Your task to perform on an android device: turn off data saver in the chrome app Image 0: 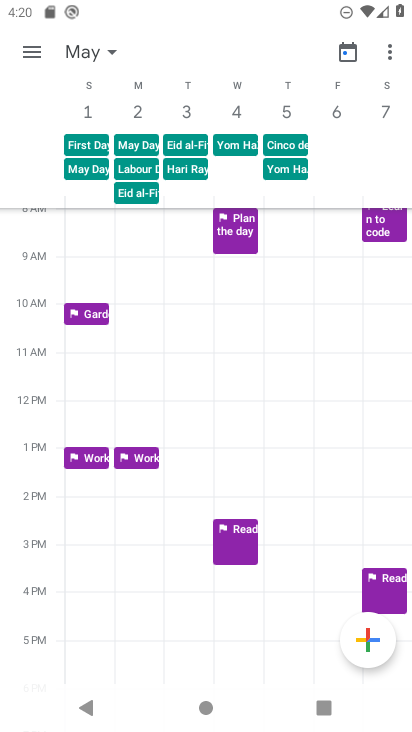
Step 0: press home button
Your task to perform on an android device: turn off data saver in the chrome app Image 1: 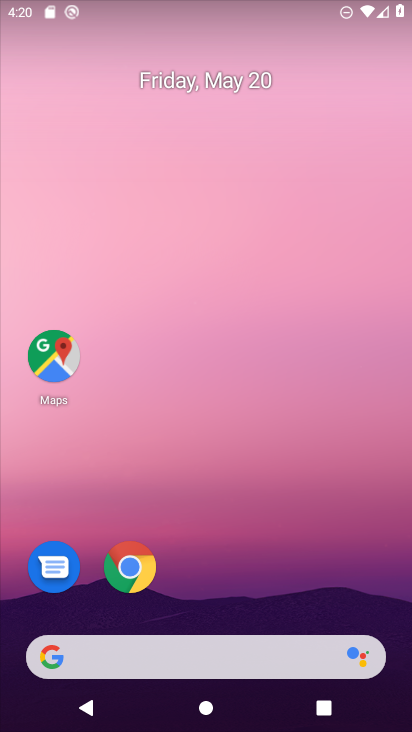
Step 1: click (136, 562)
Your task to perform on an android device: turn off data saver in the chrome app Image 2: 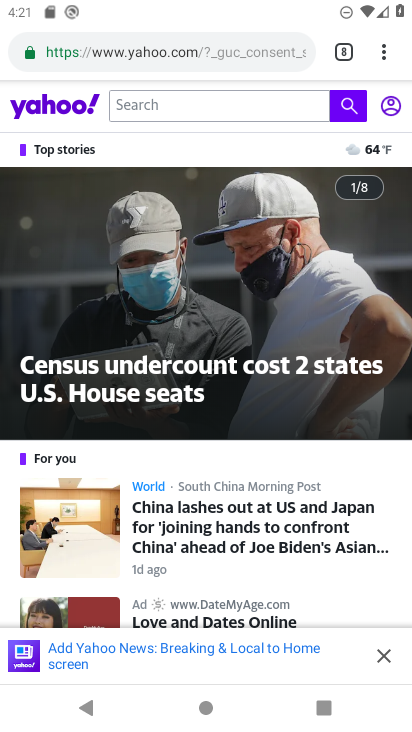
Step 2: click (384, 56)
Your task to perform on an android device: turn off data saver in the chrome app Image 3: 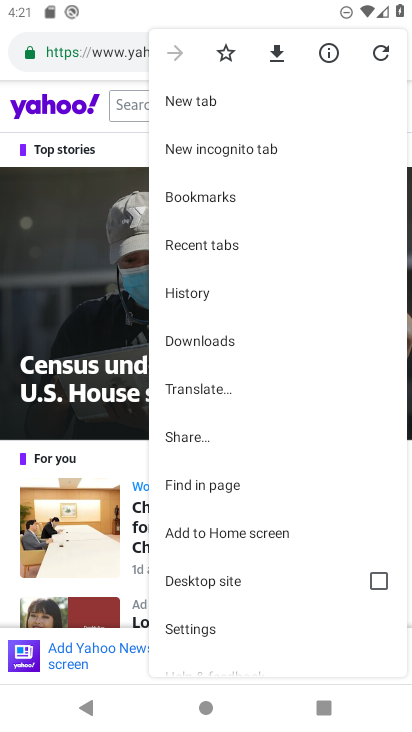
Step 3: click (194, 624)
Your task to perform on an android device: turn off data saver in the chrome app Image 4: 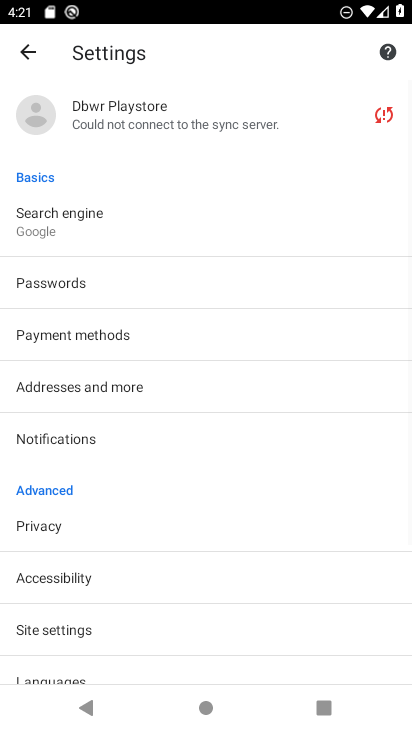
Step 4: drag from (136, 642) to (143, 321)
Your task to perform on an android device: turn off data saver in the chrome app Image 5: 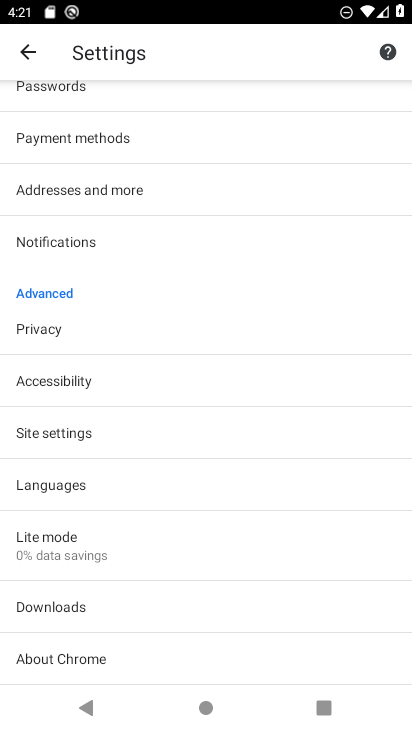
Step 5: click (64, 544)
Your task to perform on an android device: turn off data saver in the chrome app Image 6: 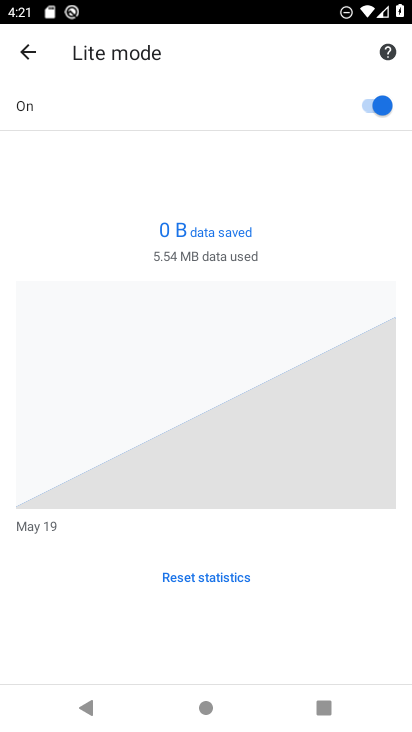
Step 6: click (367, 104)
Your task to perform on an android device: turn off data saver in the chrome app Image 7: 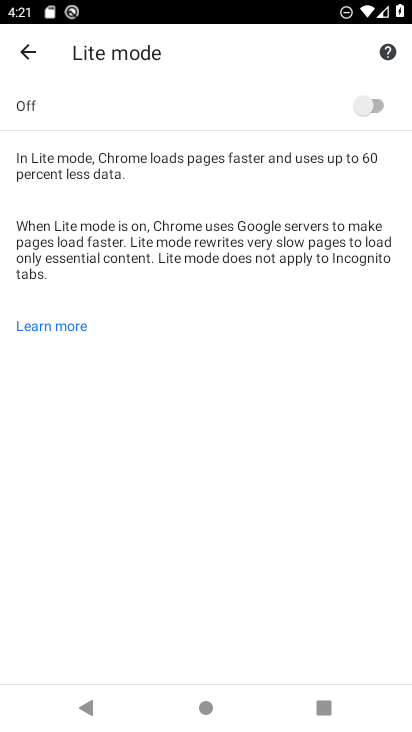
Step 7: task complete